Your task to perform on an android device: turn off sleep mode Image 0: 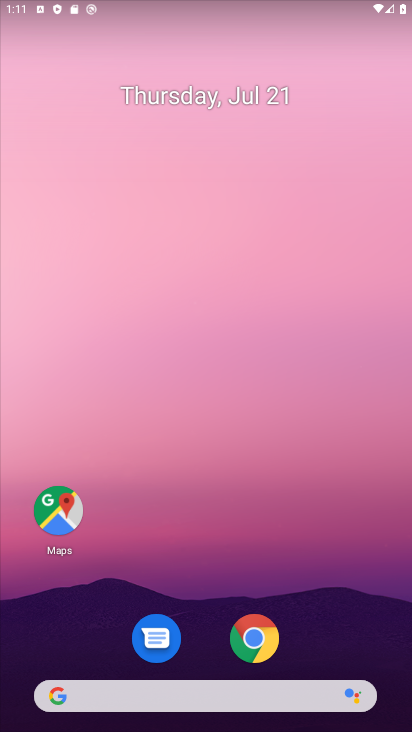
Step 0: drag from (170, 729) to (172, 152)
Your task to perform on an android device: turn off sleep mode Image 1: 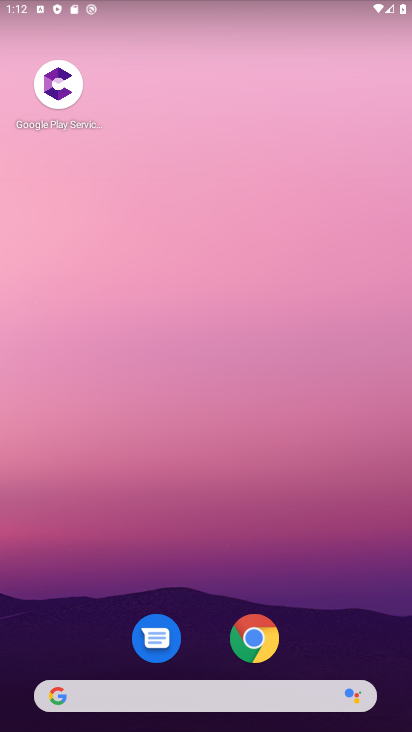
Step 1: drag from (186, 726) to (158, 3)
Your task to perform on an android device: turn off sleep mode Image 2: 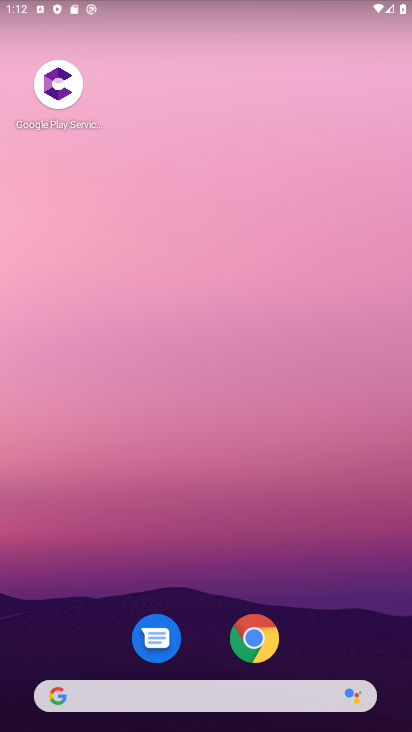
Step 2: drag from (251, 717) to (215, 7)
Your task to perform on an android device: turn off sleep mode Image 3: 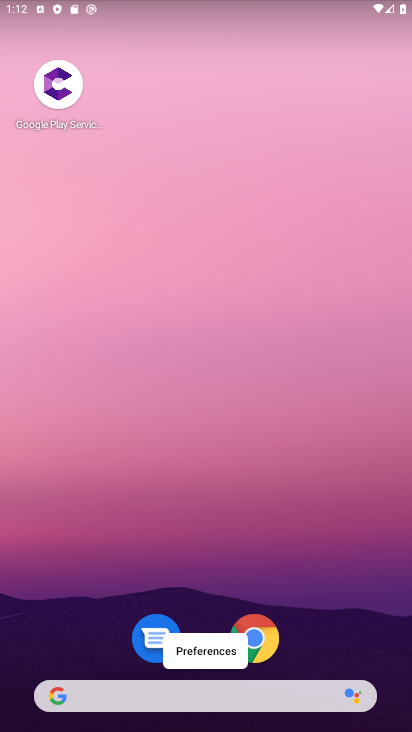
Step 3: drag from (104, 725) to (258, 20)
Your task to perform on an android device: turn off sleep mode Image 4: 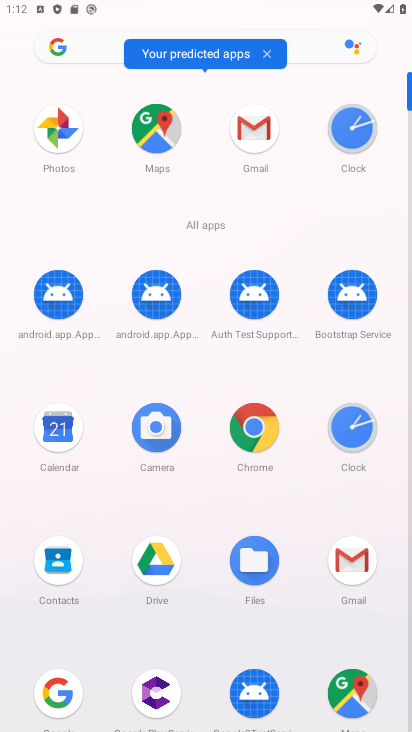
Step 4: drag from (278, 543) to (275, 164)
Your task to perform on an android device: turn off sleep mode Image 5: 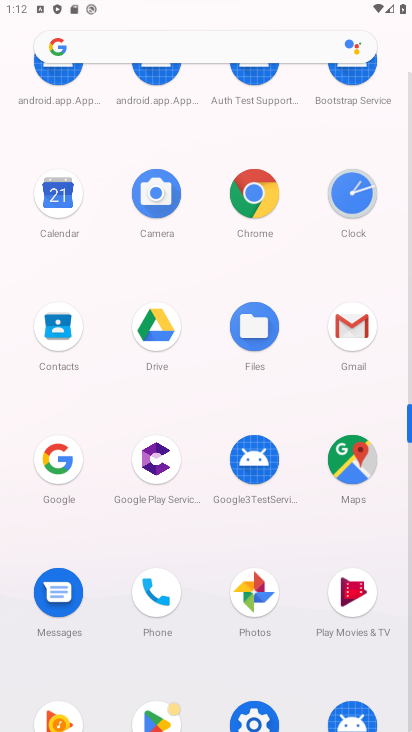
Step 5: drag from (265, 635) to (307, 258)
Your task to perform on an android device: turn off sleep mode Image 6: 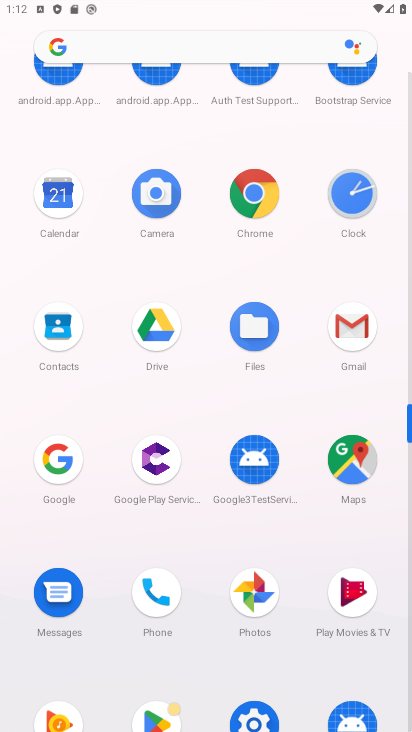
Step 6: click (247, 716)
Your task to perform on an android device: turn off sleep mode Image 7: 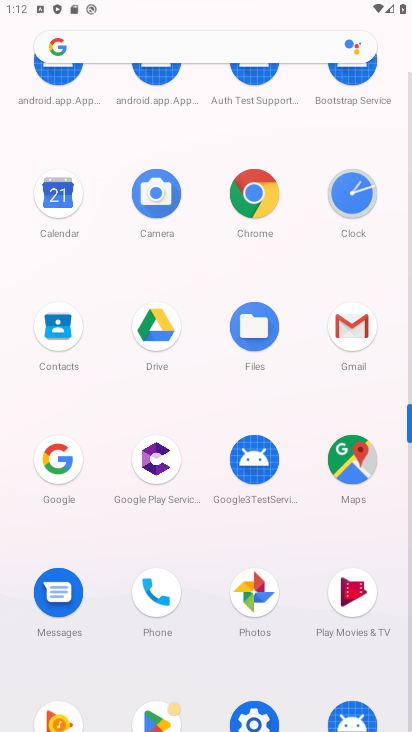
Step 7: click (247, 716)
Your task to perform on an android device: turn off sleep mode Image 8: 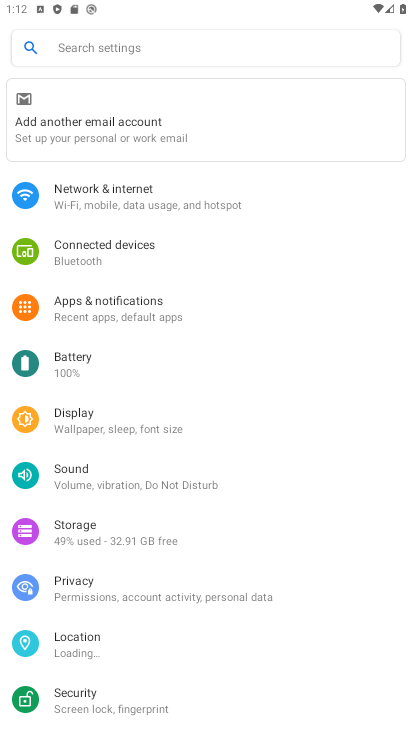
Step 8: click (157, 423)
Your task to perform on an android device: turn off sleep mode Image 9: 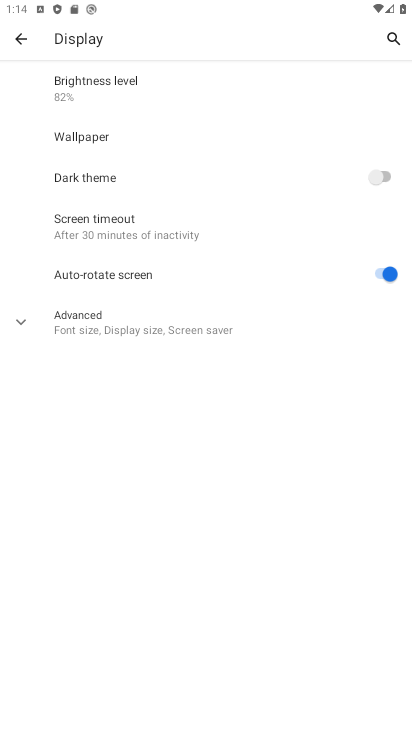
Step 9: press home button
Your task to perform on an android device: turn off sleep mode Image 10: 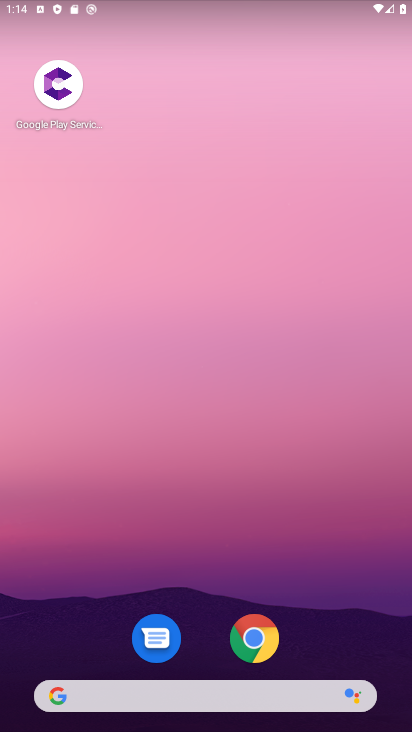
Step 10: drag from (193, 708) to (117, 77)
Your task to perform on an android device: turn off sleep mode Image 11: 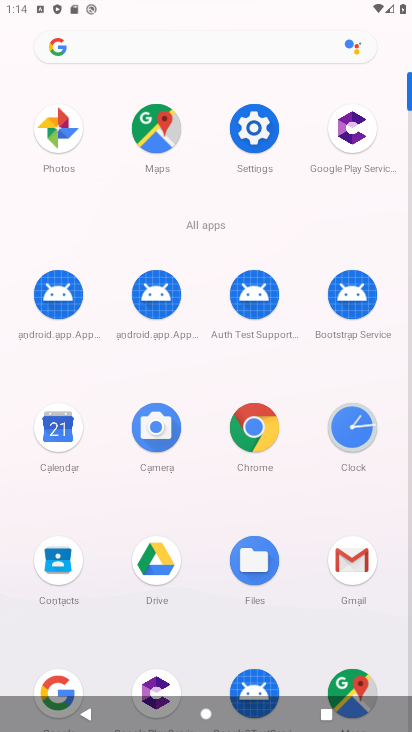
Step 11: click (251, 135)
Your task to perform on an android device: turn off sleep mode Image 12: 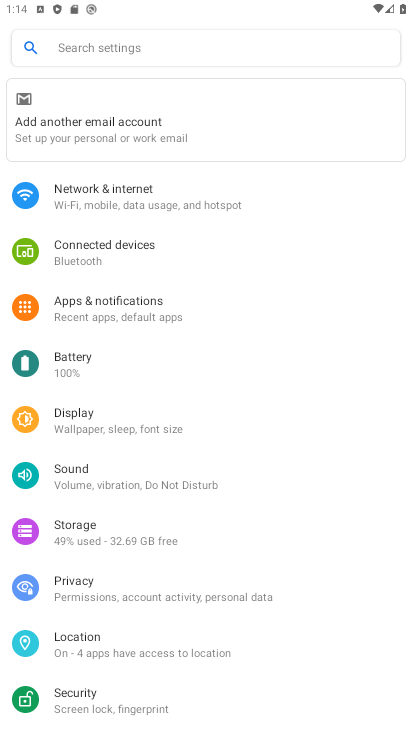
Step 12: click (153, 431)
Your task to perform on an android device: turn off sleep mode Image 13: 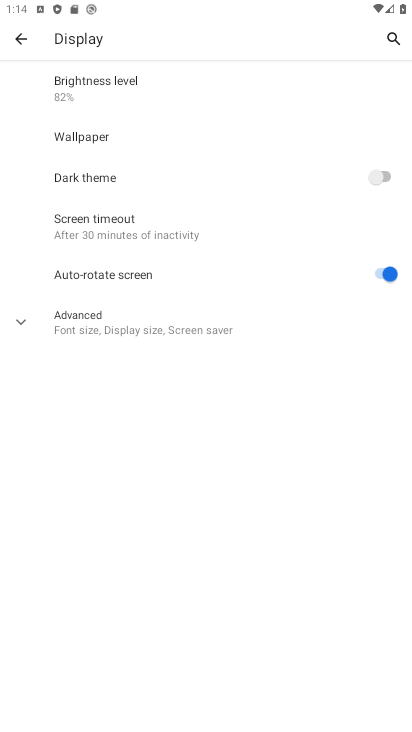
Step 13: task complete